Your task to perform on an android device: Go to accessibility settings Image 0: 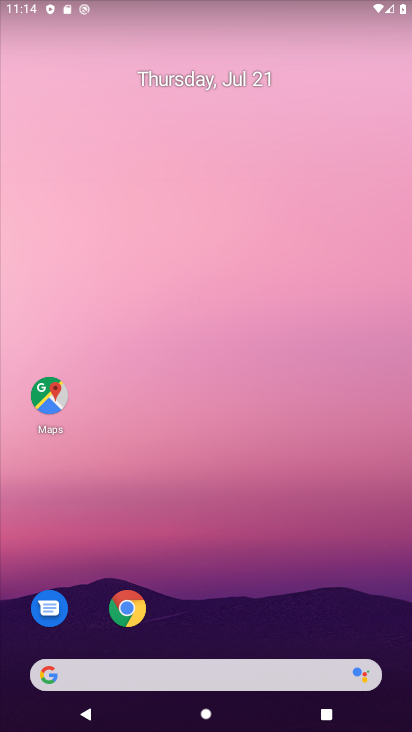
Step 0: drag from (233, 635) to (400, 17)
Your task to perform on an android device: Go to accessibility settings Image 1: 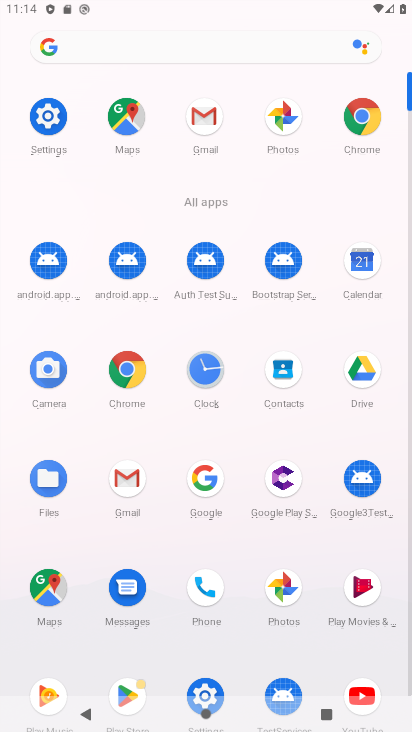
Step 1: click (211, 684)
Your task to perform on an android device: Go to accessibility settings Image 2: 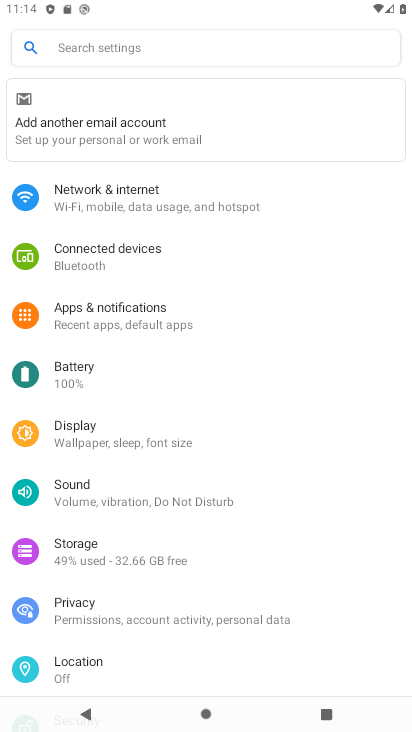
Step 2: drag from (108, 549) to (159, 240)
Your task to perform on an android device: Go to accessibility settings Image 3: 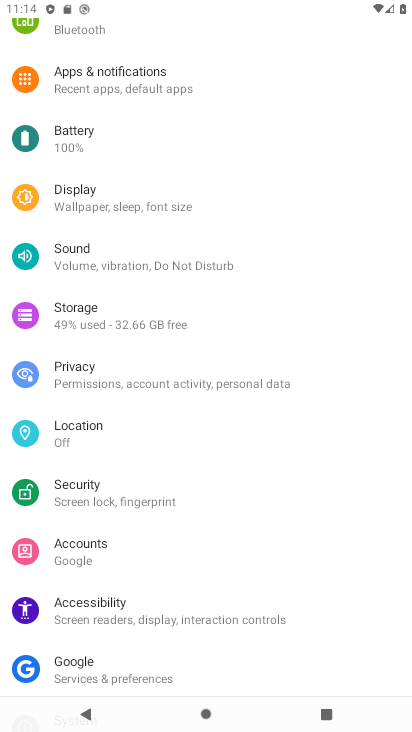
Step 3: click (121, 614)
Your task to perform on an android device: Go to accessibility settings Image 4: 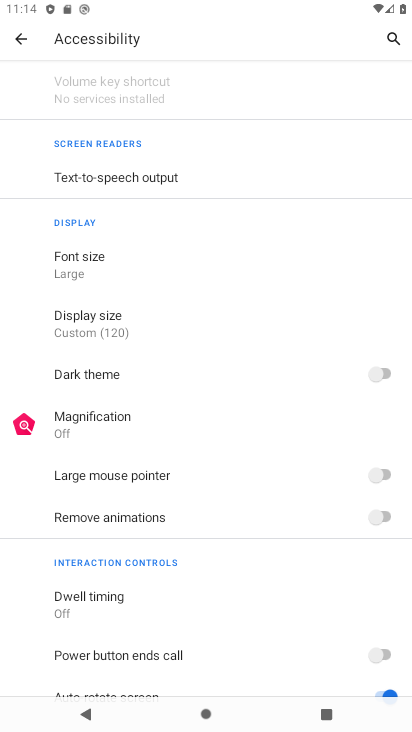
Step 4: task complete